Your task to perform on an android device: What is the recent news? Image 0: 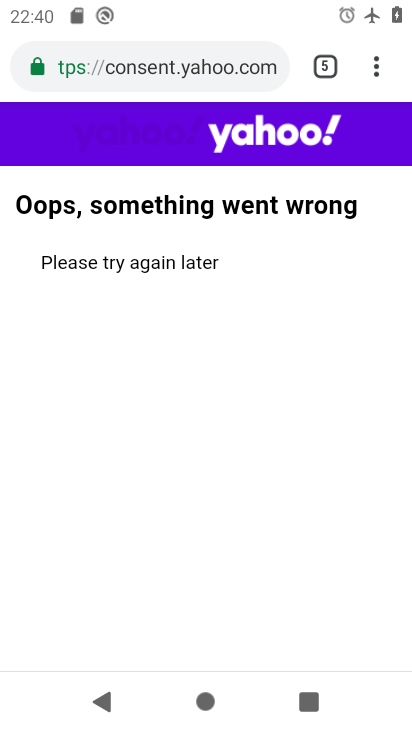
Step 0: press home button
Your task to perform on an android device: What is the recent news? Image 1: 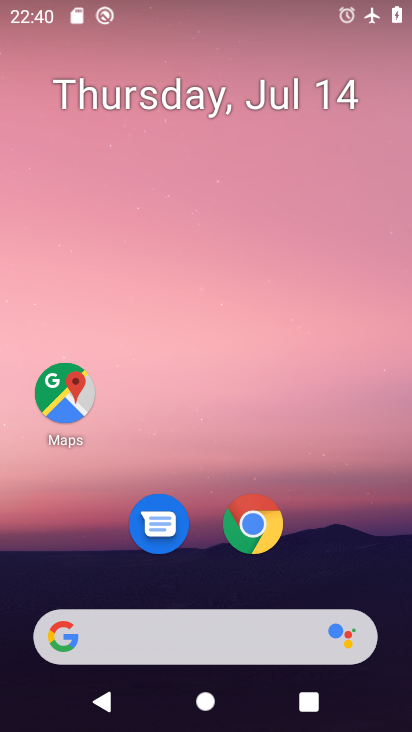
Step 1: click (234, 640)
Your task to perform on an android device: What is the recent news? Image 2: 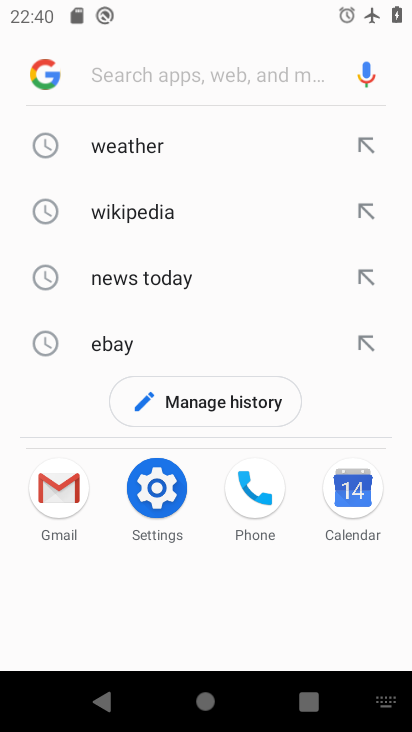
Step 2: click (161, 273)
Your task to perform on an android device: What is the recent news? Image 3: 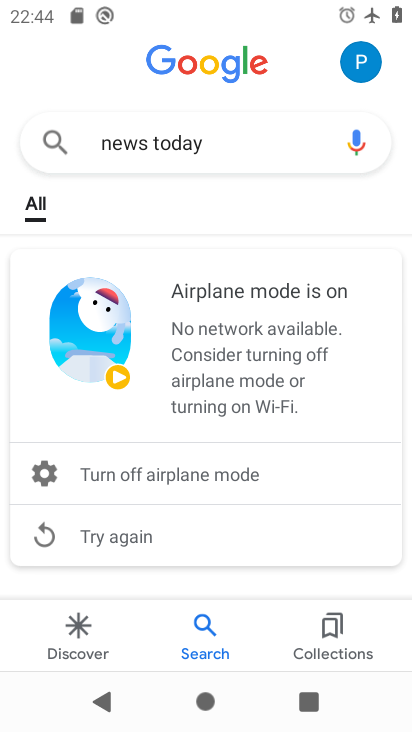
Step 3: task complete